Your task to perform on an android device: What is the recent news? Image 0: 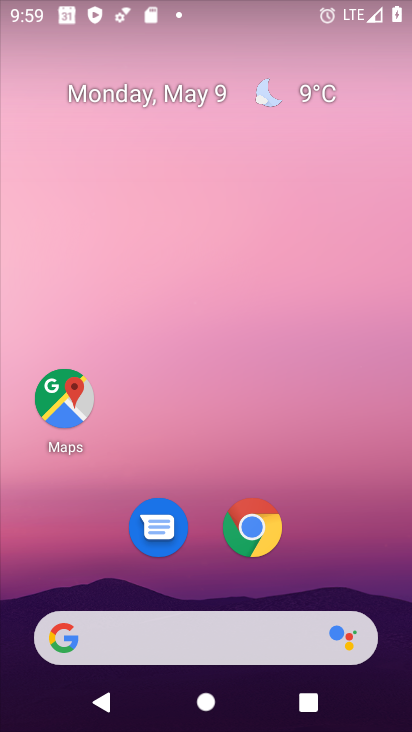
Step 0: drag from (15, 199) to (404, 209)
Your task to perform on an android device: What is the recent news? Image 1: 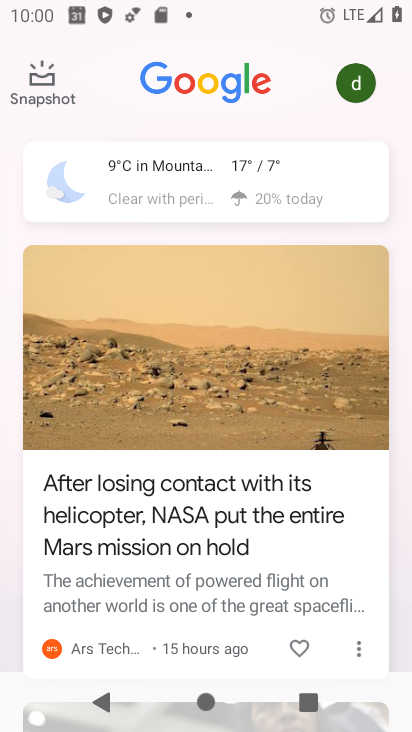
Step 1: task complete